Your task to perform on an android device: toggle priority inbox in the gmail app Image 0: 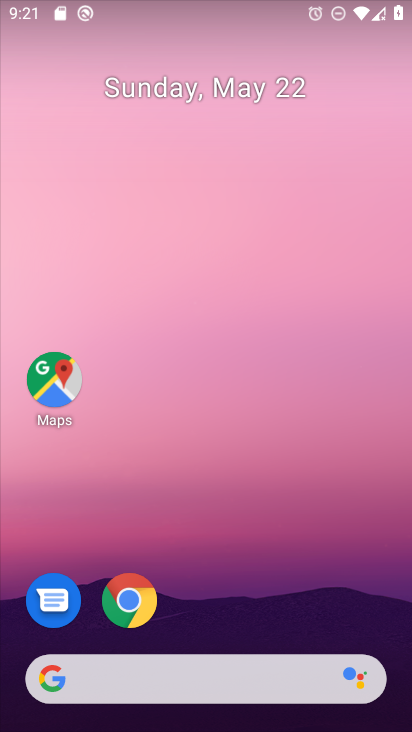
Step 0: drag from (213, 667) to (308, 191)
Your task to perform on an android device: toggle priority inbox in the gmail app Image 1: 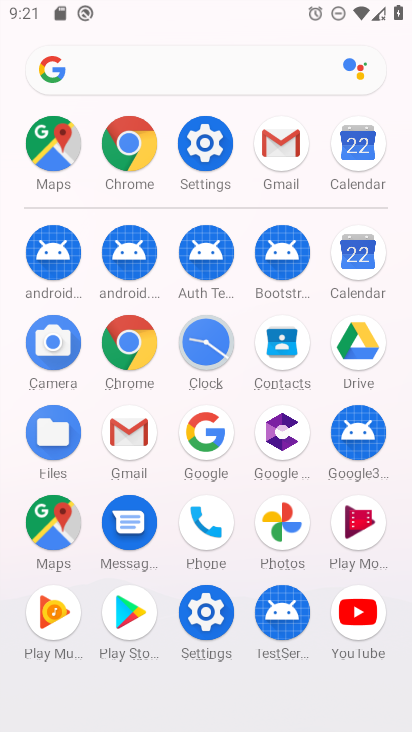
Step 1: click (298, 169)
Your task to perform on an android device: toggle priority inbox in the gmail app Image 2: 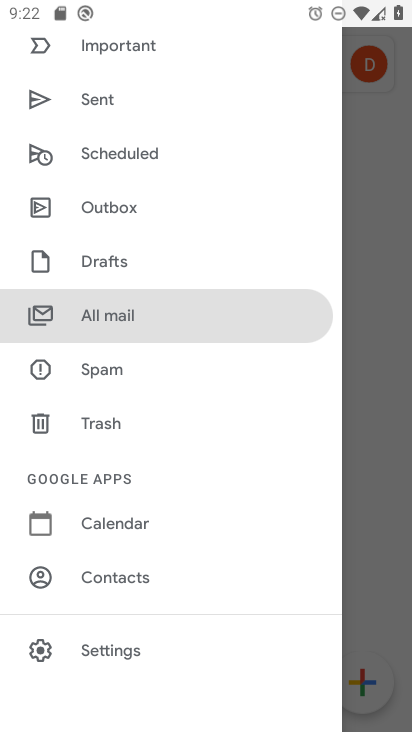
Step 2: click (113, 657)
Your task to perform on an android device: toggle priority inbox in the gmail app Image 3: 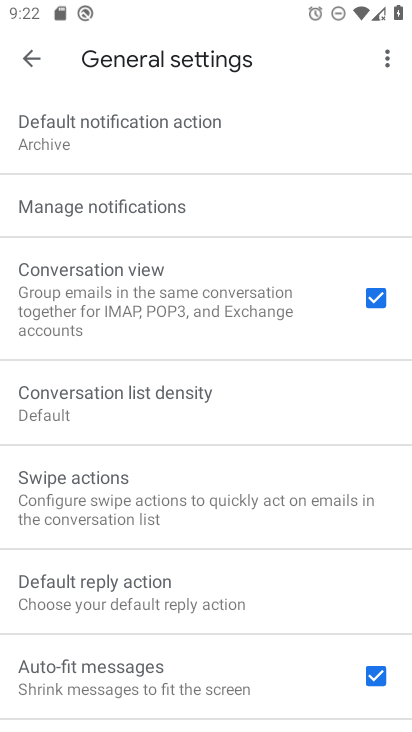
Step 3: click (35, 68)
Your task to perform on an android device: toggle priority inbox in the gmail app Image 4: 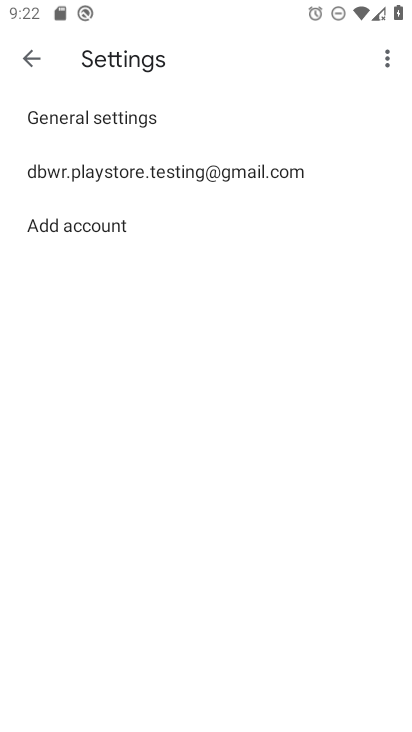
Step 4: click (121, 174)
Your task to perform on an android device: toggle priority inbox in the gmail app Image 5: 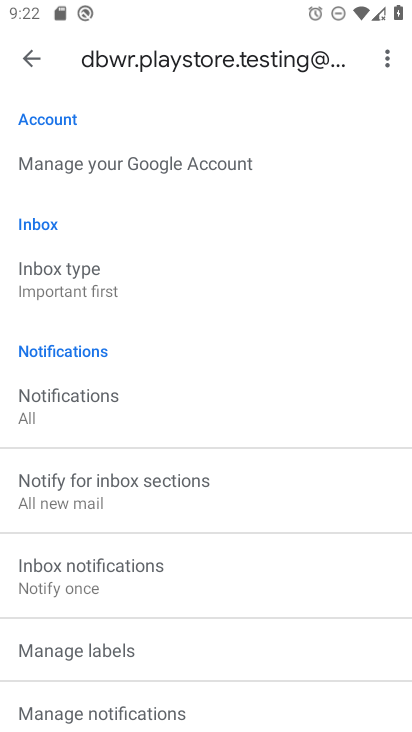
Step 5: click (119, 283)
Your task to perform on an android device: toggle priority inbox in the gmail app Image 6: 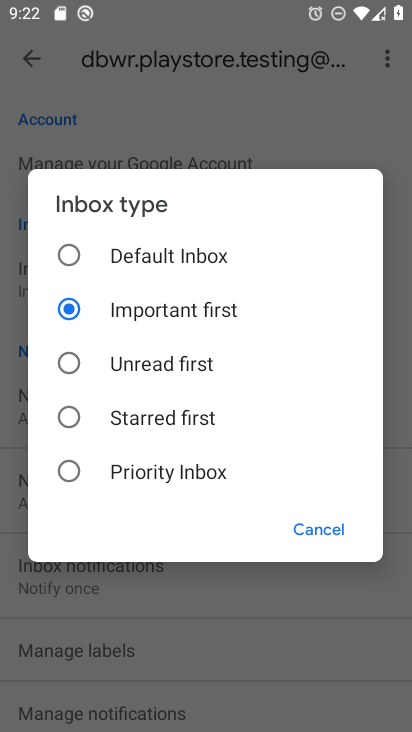
Step 6: click (147, 473)
Your task to perform on an android device: toggle priority inbox in the gmail app Image 7: 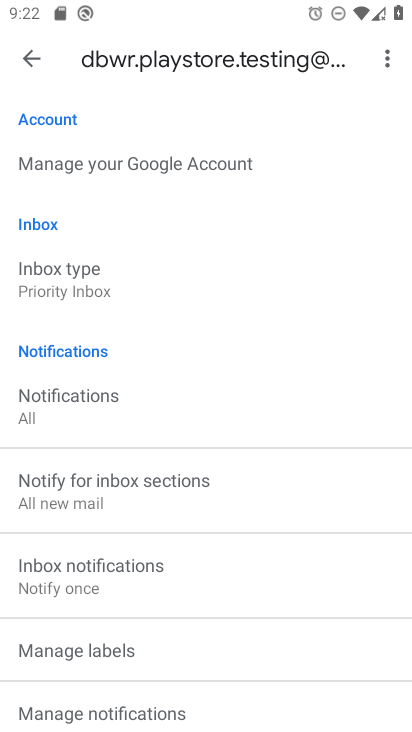
Step 7: task complete